Your task to perform on an android device: Open calendar and show me the third week of next month Image 0: 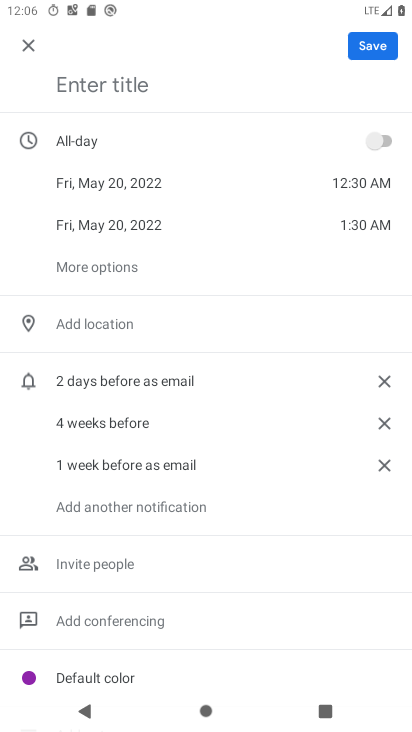
Step 0: press home button
Your task to perform on an android device: Open calendar and show me the third week of next month Image 1: 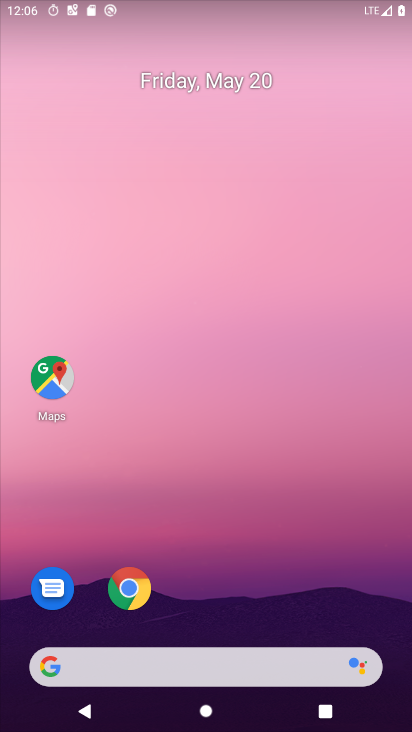
Step 1: drag from (169, 666) to (242, 219)
Your task to perform on an android device: Open calendar and show me the third week of next month Image 2: 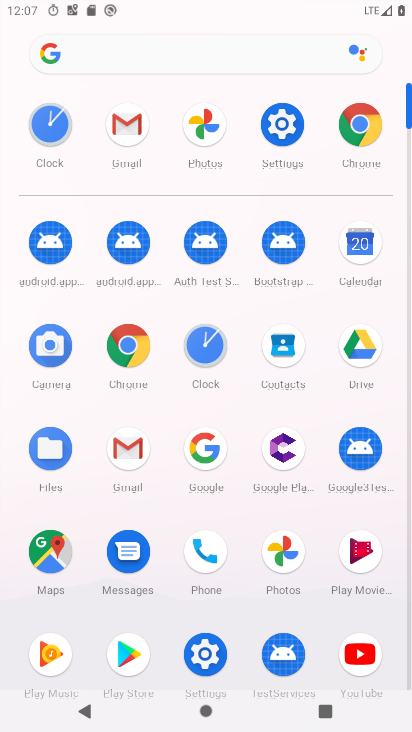
Step 2: click (368, 257)
Your task to perform on an android device: Open calendar and show me the third week of next month Image 3: 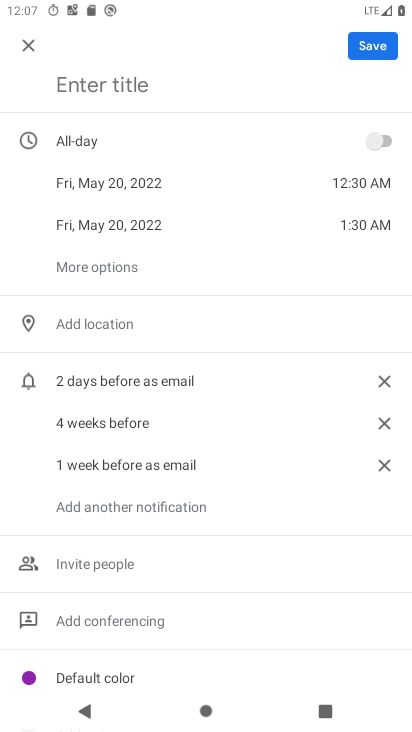
Step 3: click (27, 48)
Your task to perform on an android device: Open calendar and show me the third week of next month Image 4: 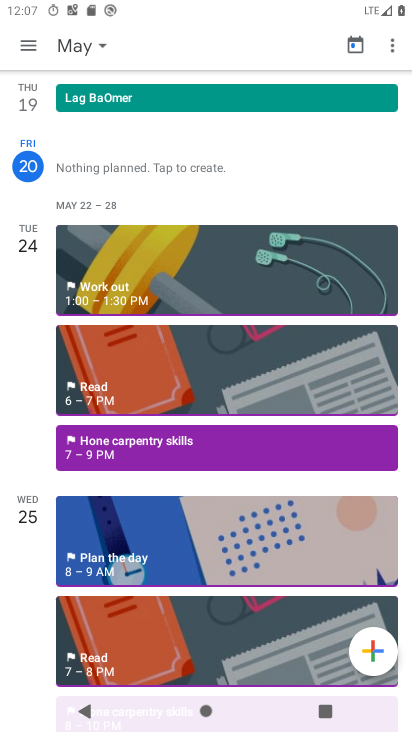
Step 4: click (88, 45)
Your task to perform on an android device: Open calendar and show me the third week of next month Image 5: 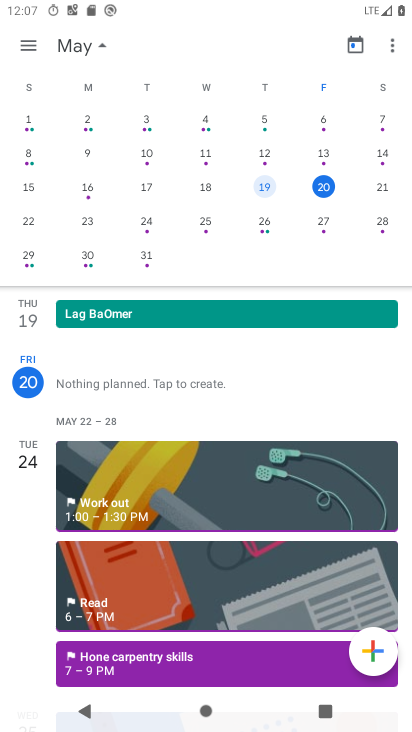
Step 5: drag from (351, 209) to (92, 110)
Your task to perform on an android device: Open calendar and show me the third week of next month Image 6: 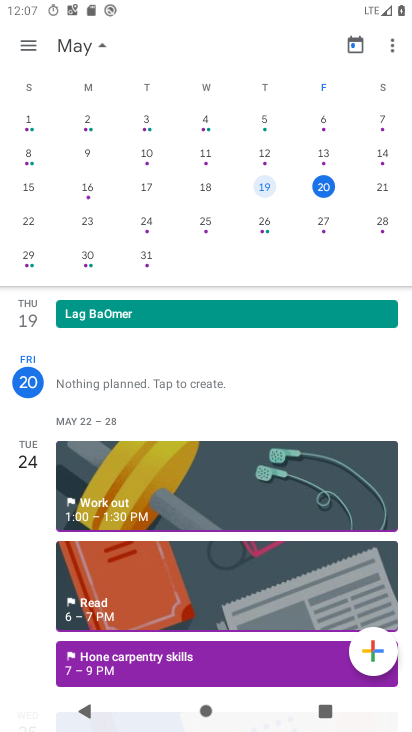
Step 6: drag from (350, 144) to (59, 153)
Your task to perform on an android device: Open calendar and show me the third week of next month Image 7: 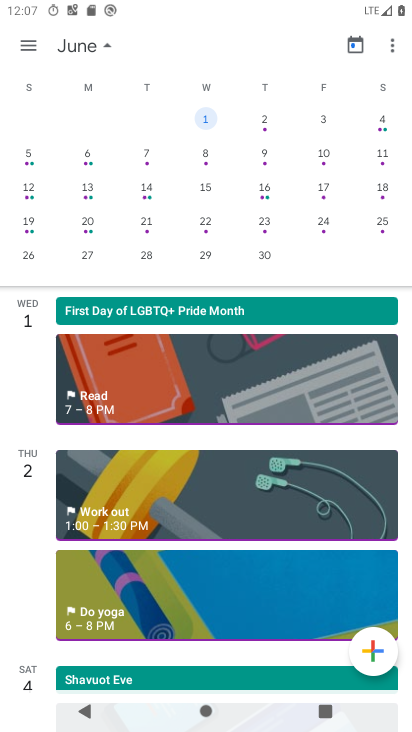
Step 7: click (31, 193)
Your task to perform on an android device: Open calendar and show me the third week of next month Image 8: 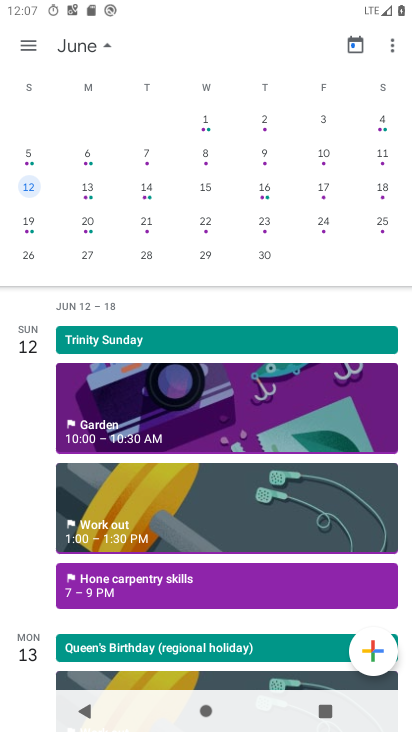
Step 8: click (30, 49)
Your task to perform on an android device: Open calendar and show me the third week of next month Image 9: 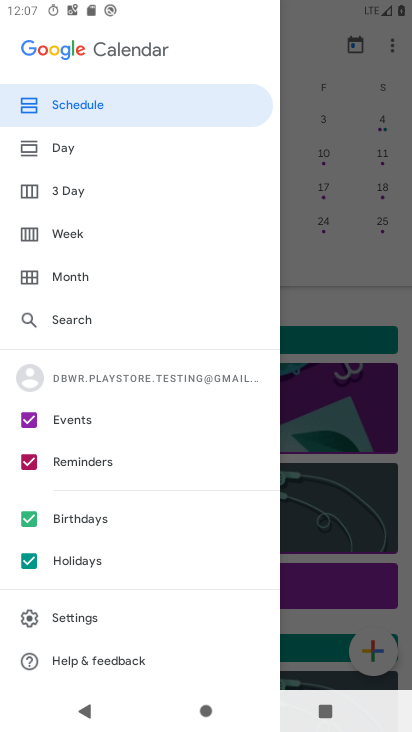
Step 9: click (80, 235)
Your task to perform on an android device: Open calendar and show me the third week of next month Image 10: 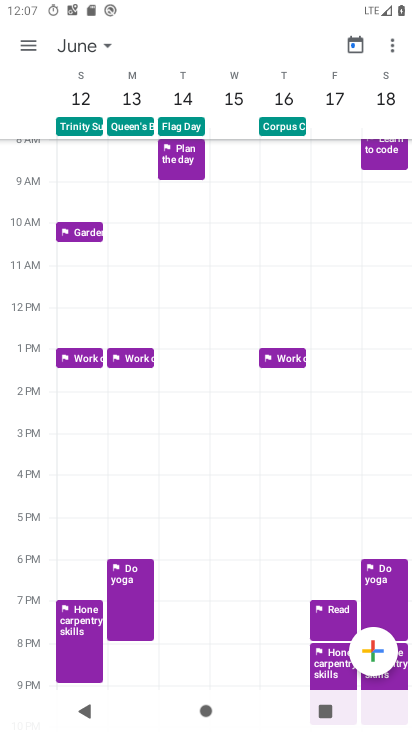
Step 10: task complete